Your task to perform on an android device: check the backup settings in the google photos Image 0: 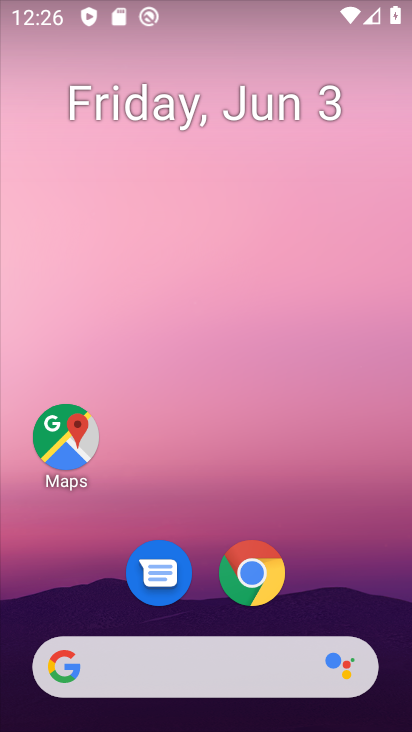
Step 0: task complete